Your task to perform on an android device: set the stopwatch Image 0: 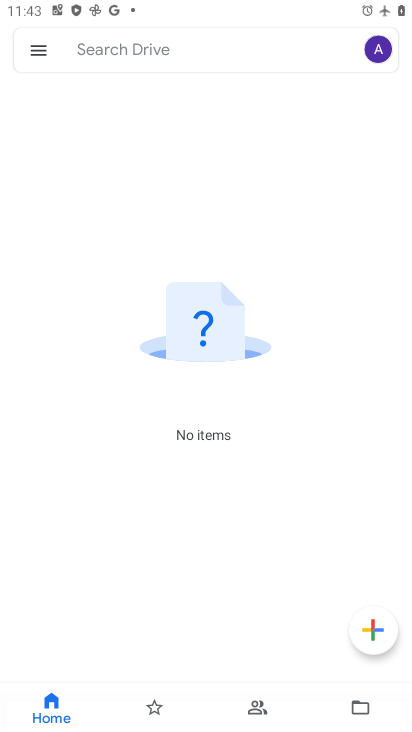
Step 0: press home button
Your task to perform on an android device: set the stopwatch Image 1: 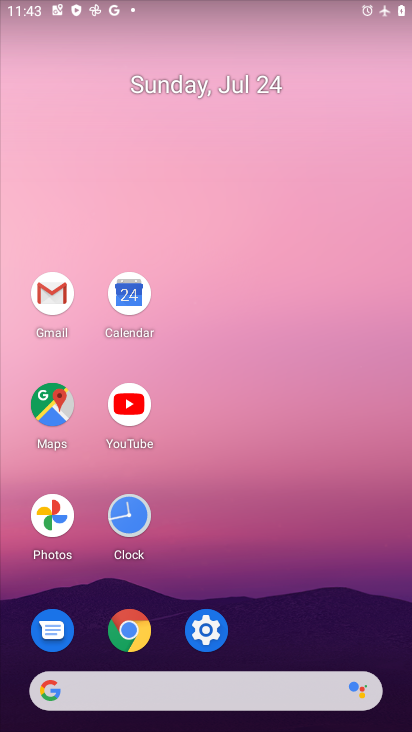
Step 1: click (129, 506)
Your task to perform on an android device: set the stopwatch Image 2: 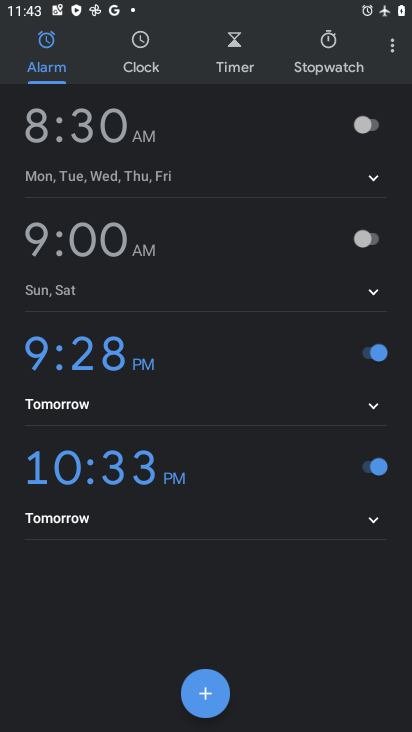
Step 2: click (322, 41)
Your task to perform on an android device: set the stopwatch Image 3: 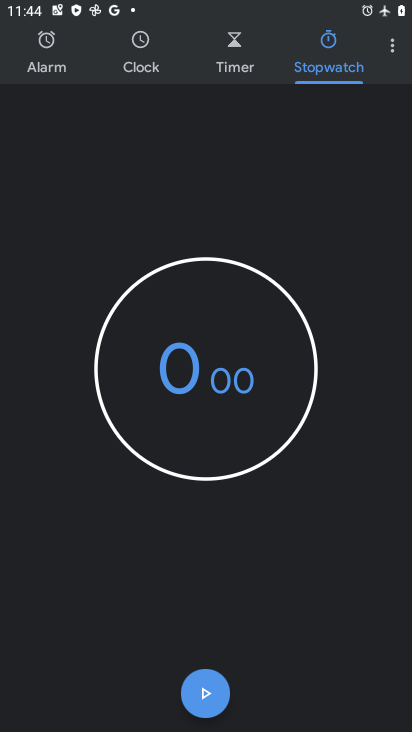
Step 3: task complete